Your task to perform on an android device: toggle javascript in the chrome app Image 0: 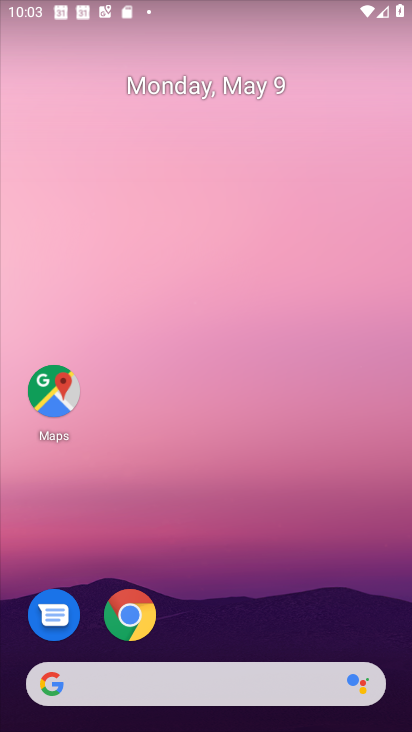
Step 0: press home button
Your task to perform on an android device: toggle javascript in the chrome app Image 1: 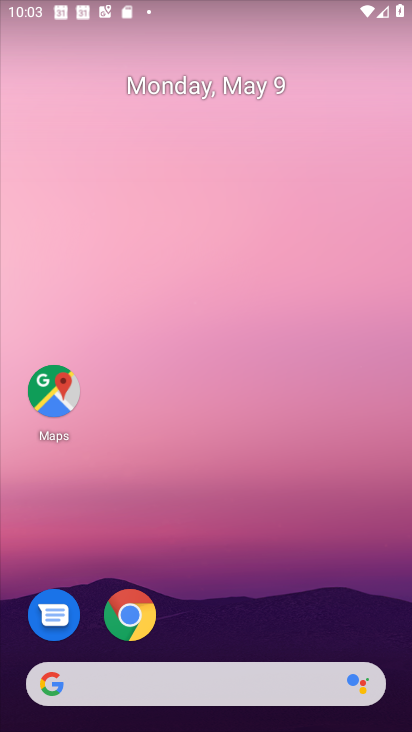
Step 1: drag from (312, 710) to (173, 231)
Your task to perform on an android device: toggle javascript in the chrome app Image 2: 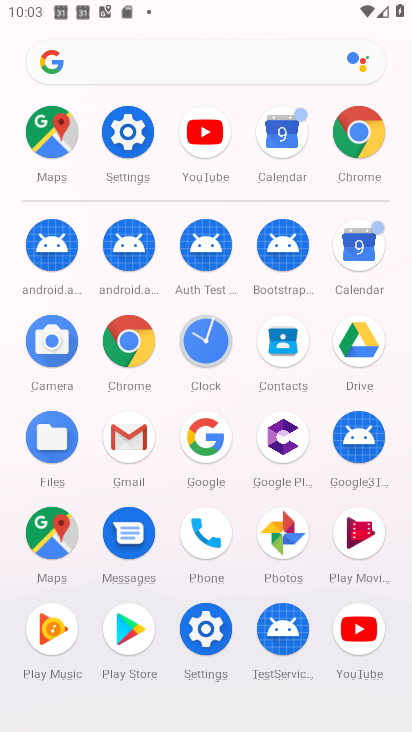
Step 2: click (362, 140)
Your task to perform on an android device: toggle javascript in the chrome app Image 3: 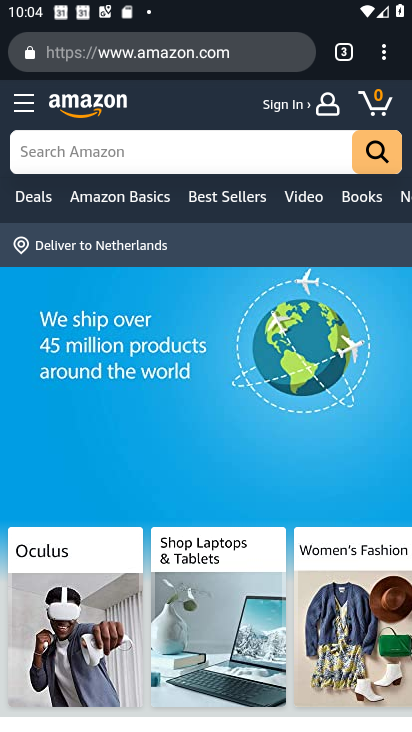
Step 3: click (380, 59)
Your task to perform on an android device: toggle javascript in the chrome app Image 4: 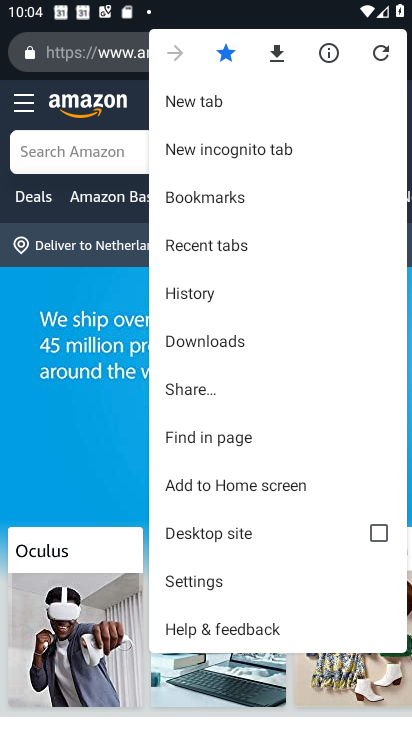
Step 4: click (200, 582)
Your task to perform on an android device: toggle javascript in the chrome app Image 5: 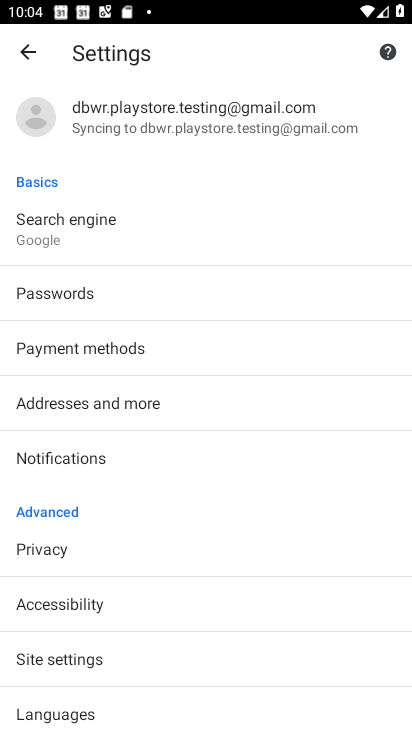
Step 5: drag from (91, 611) to (46, 498)
Your task to perform on an android device: toggle javascript in the chrome app Image 6: 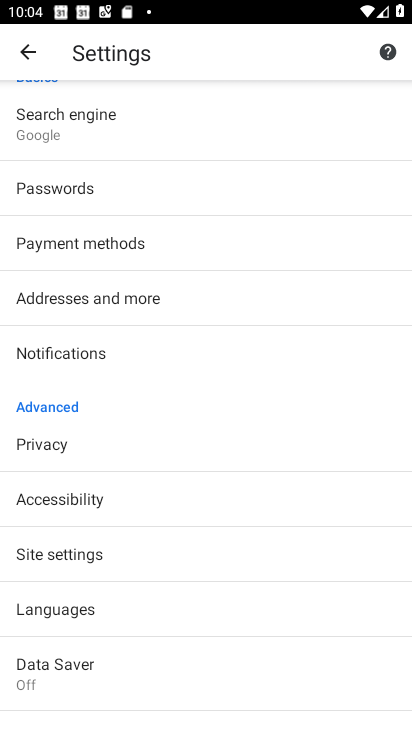
Step 6: click (99, 557)
Your task to perform on an android device: toggle javascript in the chrome app Image 7: 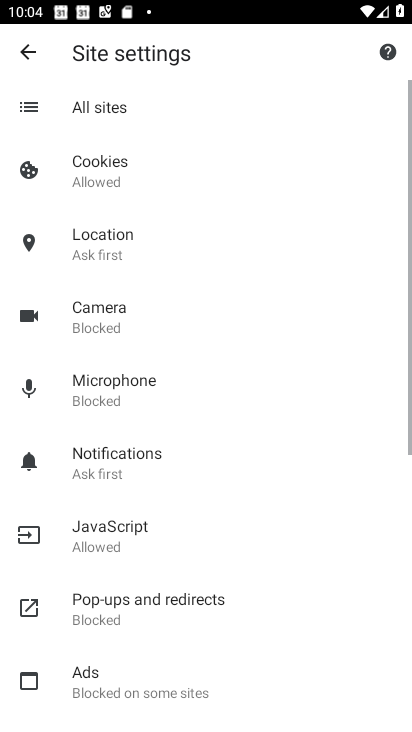
Step 7: click (172, 535)
Your task to perform on an android device: toggle javascript in the chrome app Image 8: 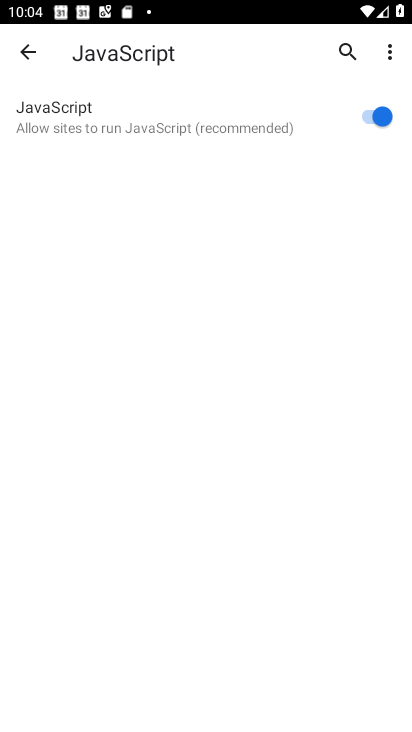
Step 8: task complete